Your task to perform on an android device: snooze an email in the gmail app Image 0: 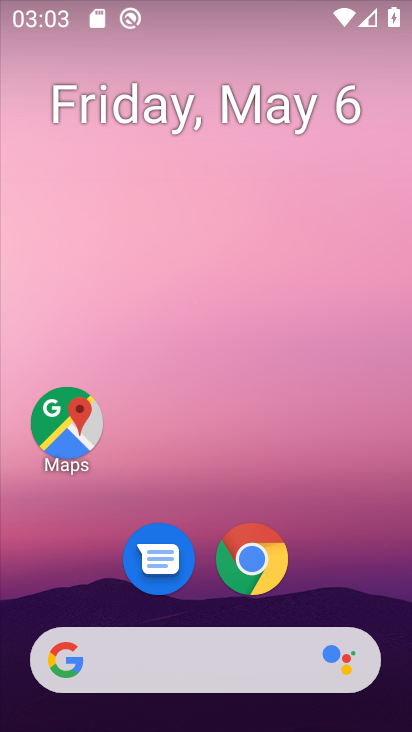
Step 0: drag from (334, 622) to (319, 34)
Your task to perform on an android device: snooze an email in the gmail app Image 1: 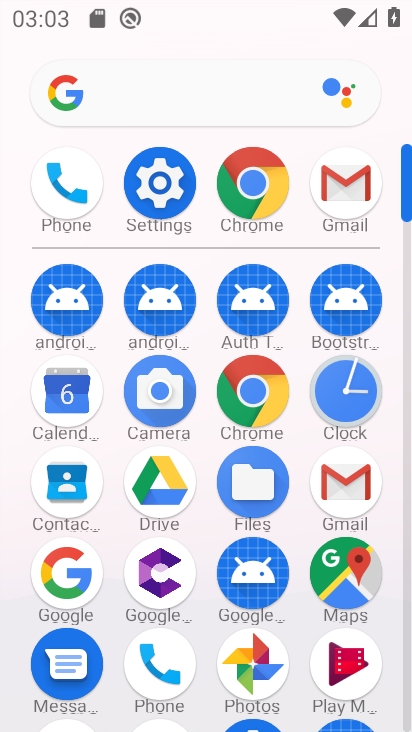
Step 1: click (323, 493)
Your task to perform on an android device: snooze an email in the gmail app Image 2: 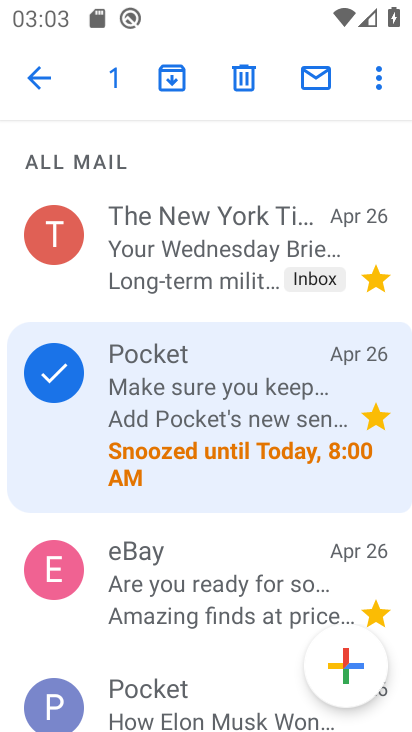
Step 2: press back button
Your task to perform on an android device: snooze an email in the gmail app Image 3: 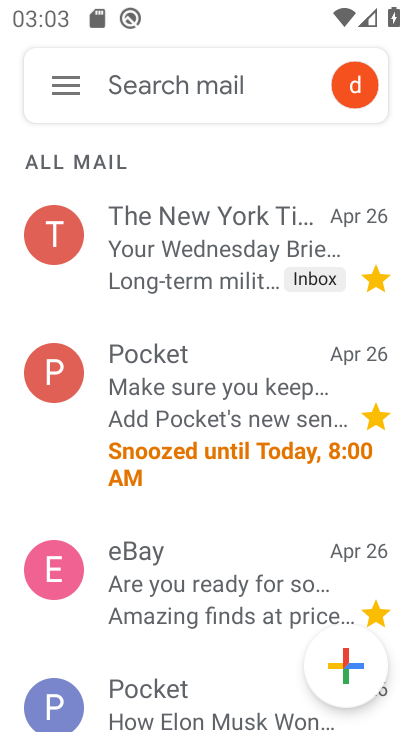
Step 3: click (269, 588)
Your task to perform on an android device: snooze an email in the gmail app Image 4: 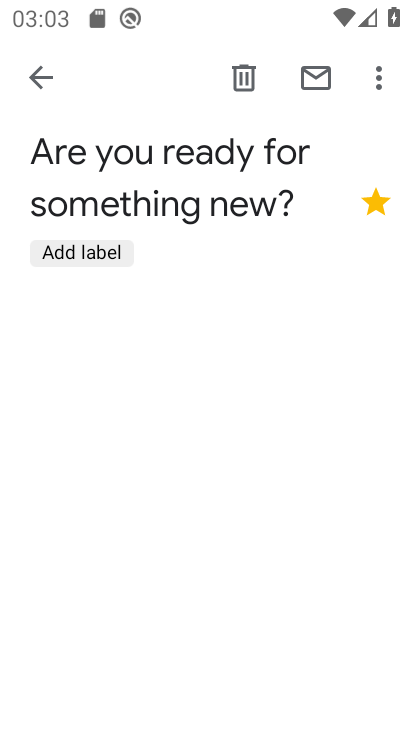
Step 4: click (374, 82)
Your task to perform on an android device: snooze an email in the gmail app Image 5: 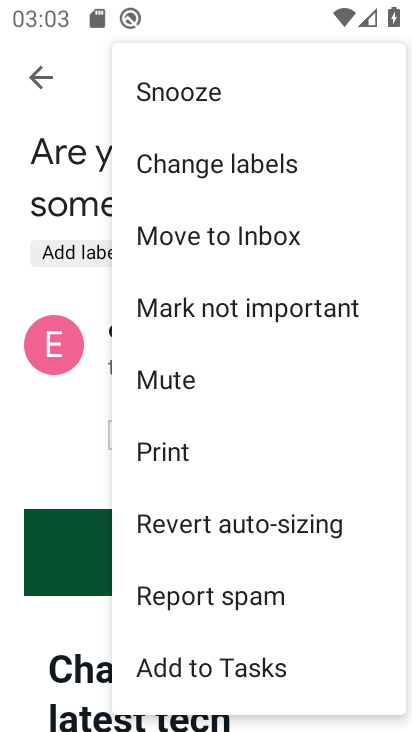
Step 5: click (227, 87)
Your task to perform on an android device: snooze an email in the gmail app Image 6: 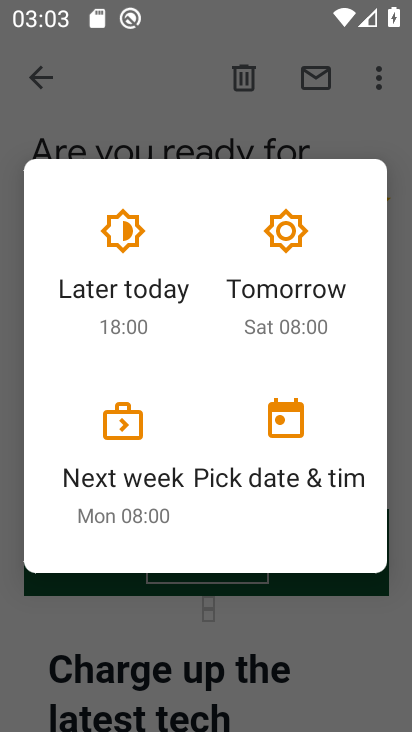
Step 6: click (112, 236)
Your task to perform on an android device: snooze an email in the gmail app Image 7: 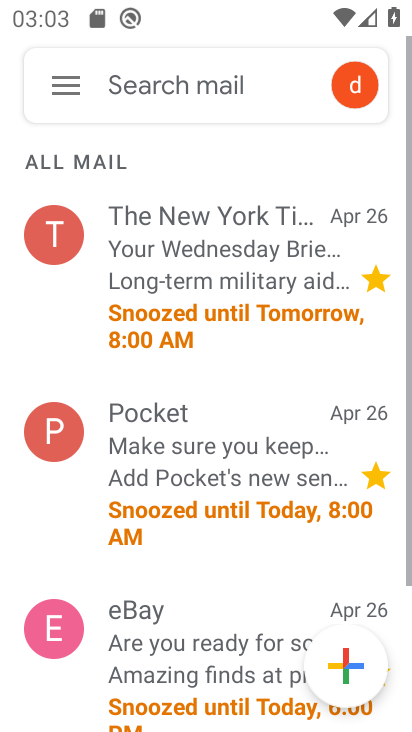
Step 7: task complete